Your task to perform on an android device: Check the news Image 0: 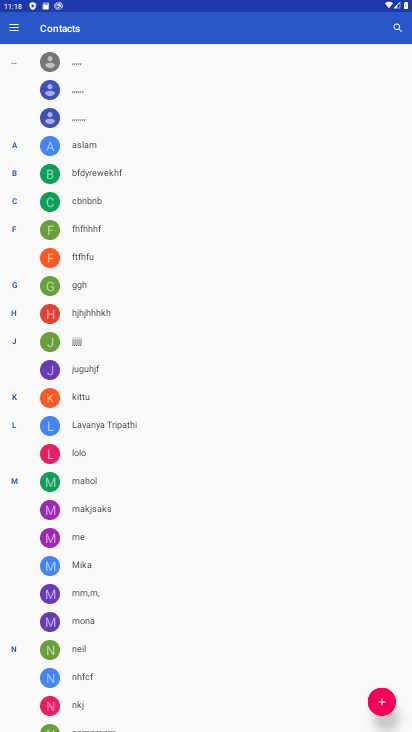
Step 0: press home button
Your task to perform on an android device: Check the news Image 1: 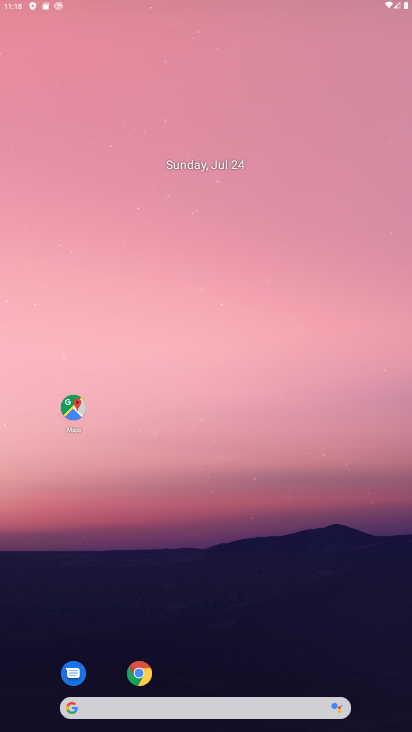
Step 1: drag from (319, 644) to (289, 151)
Your task to perform on an android device: Check the news Image 2: 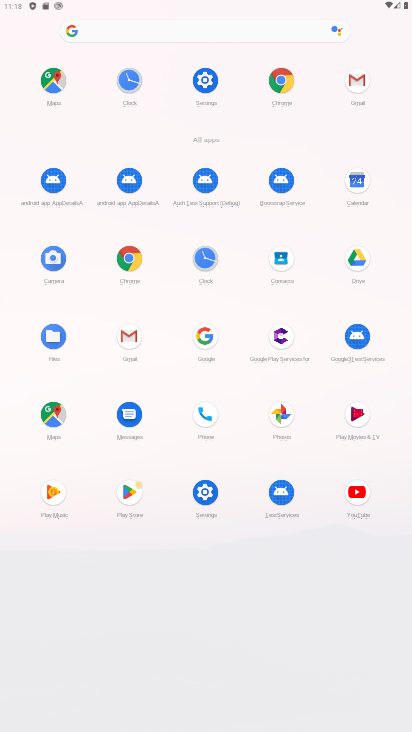
Step 2: click (128, 257)
Your task to perform on an android device: Check the news Image 3: 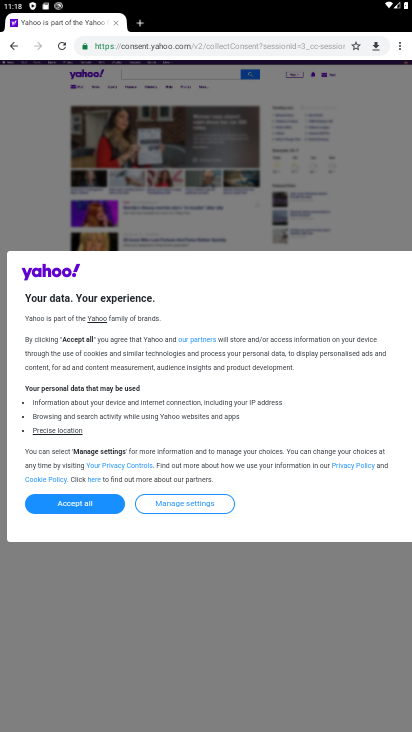
Step 3: click (251, 45)
Your task to perform on an android device: Check the news Image 4: 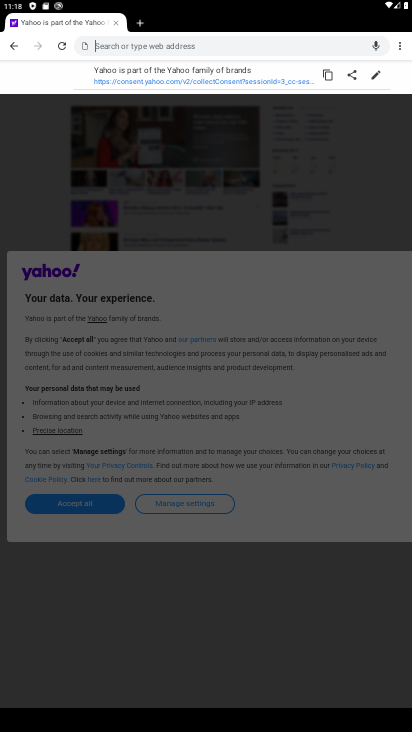
Step 4: type "news"
Your task to perform on an android device: Check the news Image 5: 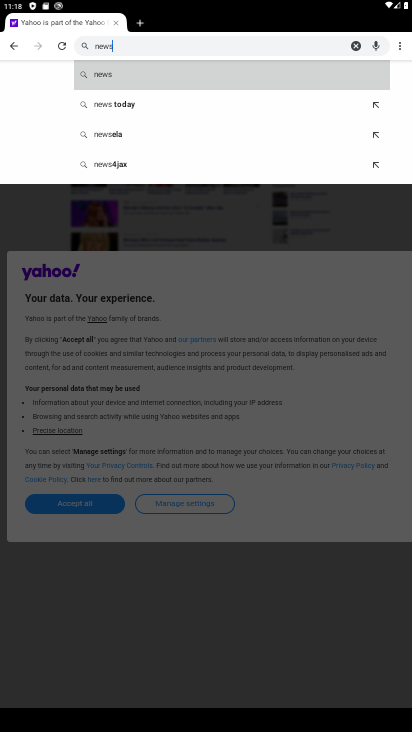
Step 5: click (104, 74)
Your task to perform on an android device: Check the news Image 6: 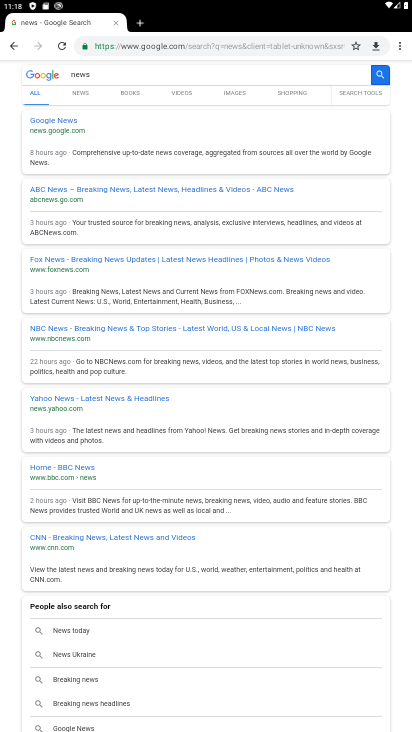
Step 6: click (68, 118)
Your task to perform on an android device: Check the news Image 7: 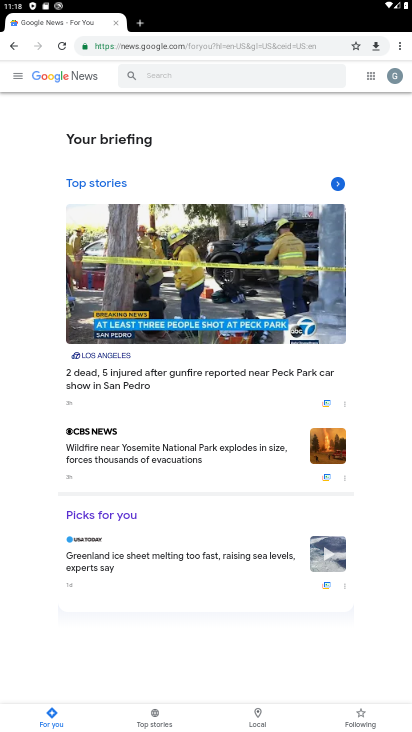
Step 7: task complete